Your task to perform on an android device: open the mobile data screen to see how much data has been used Image 0: 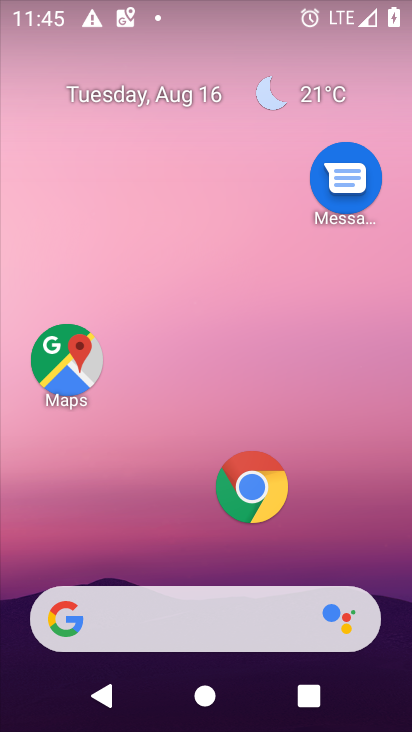
Step 0: drag from (110, 536) to (224, 15)
Your task to perform on an android device: open the mobile data screen to see how much data has been used Image 1: 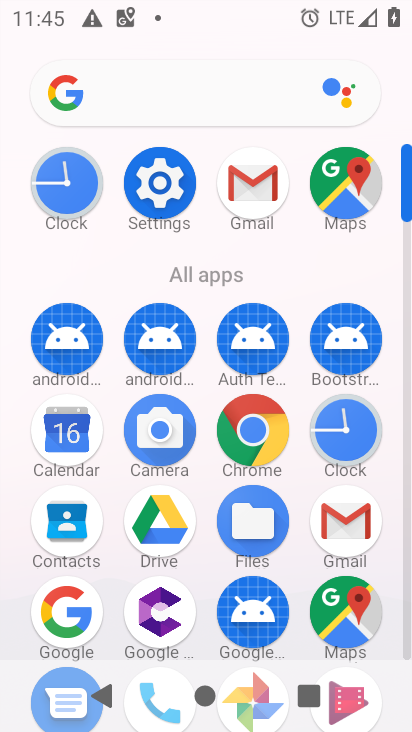
Step 1: click (156, 181)
Your task to perform on an android device: open the mobile data screen to see how much data has been used Image 2: 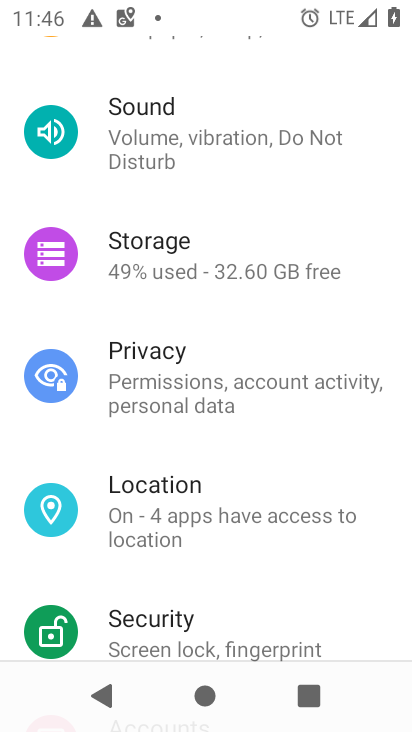
Step 2: drag from (237, 276) to (175, 695)
Your task to perform on an android device: open the mobile data screen to see how much data has been used Image 3: 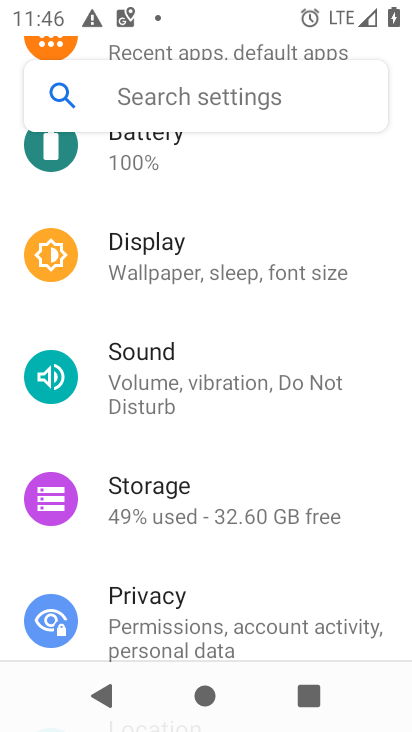
Step 3: drag from (226, 189) to (186, 644)
Your task to perform on an android device: open the mobile data screen to see how much data has been used Image 4: 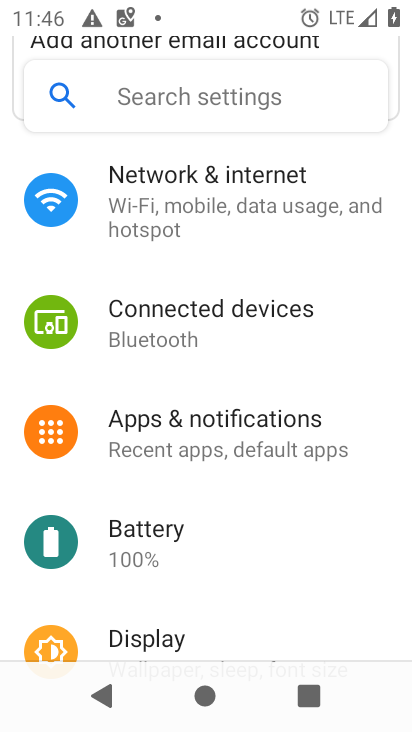
Step 4: click (245, 176)
Your task to perform on an android device: open the mobile data screen to see how much data has been used Image 5: 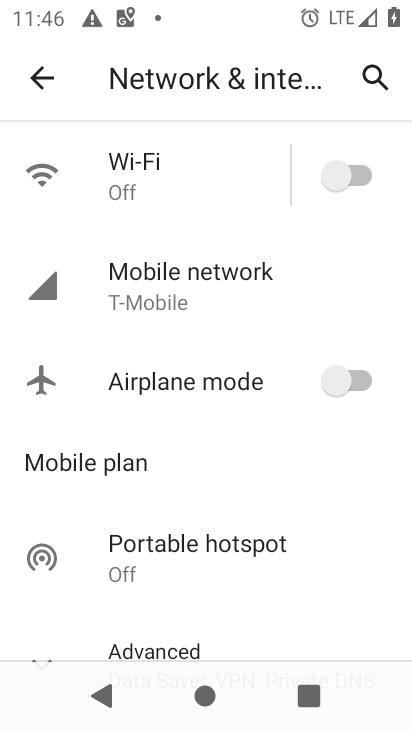
Step 5: click (188, 287)
Your task to perform on an android device: open the mobile data screen to see how much data has been used Image 6: 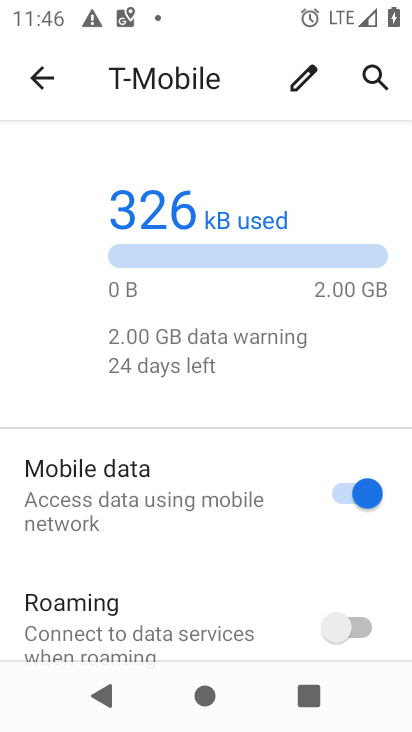
Step 6: drag from (135, 615) to (256, 119)
Your task to perform on an android device: open the mobile data screen to see how much data has been used Image 7: 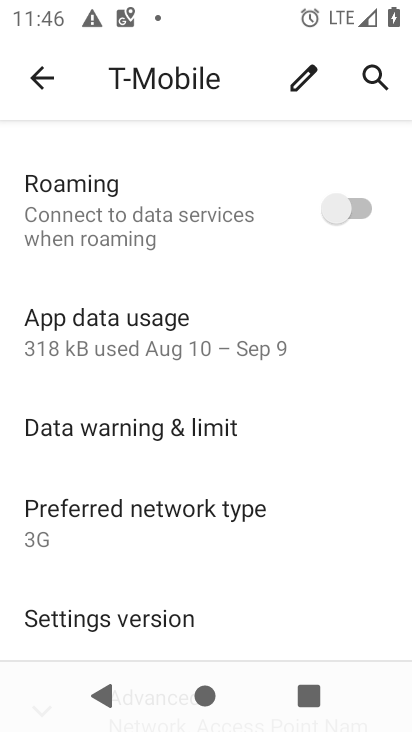
Step 7: click (194, 340)
Your task to perform on an android device: open the mobile data screen to see how much data has been used Image 8: 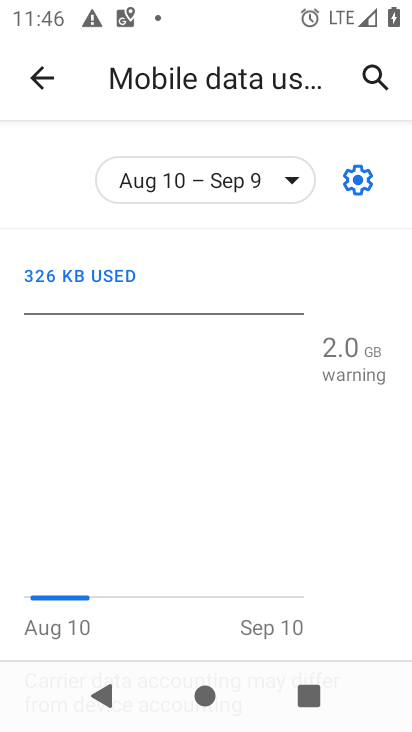
Step 8: task complete